Your task to perform on an android device: turn off javascript in the chrome app Image 0: 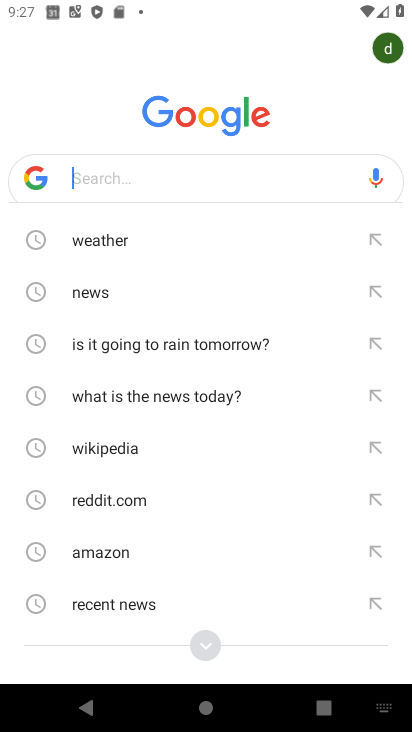
Step 0: press home button
Your task to perform on an android device: turn off javascript in the chrome app Image 1: 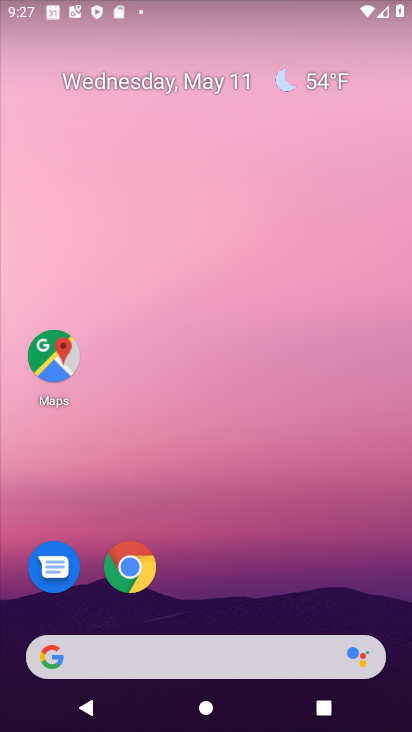
Step 1: click (142, 565)
Your task to perform on an android device: turn off javascript in the chrome app Image 2: 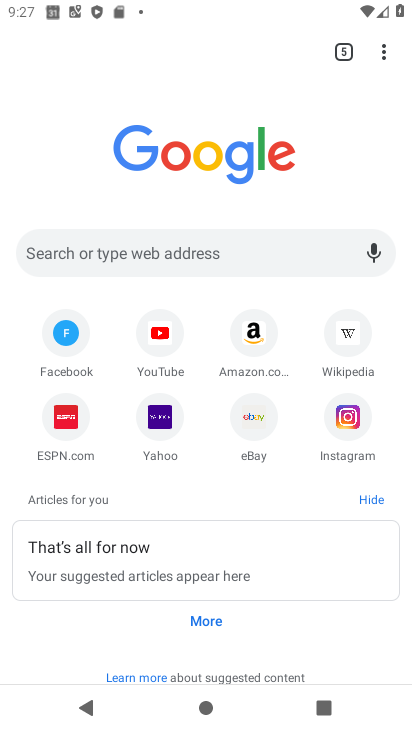
Step 2: click (383, 62)
Your task to perform on an android device: turn off javascript in the chrome app Image 3: 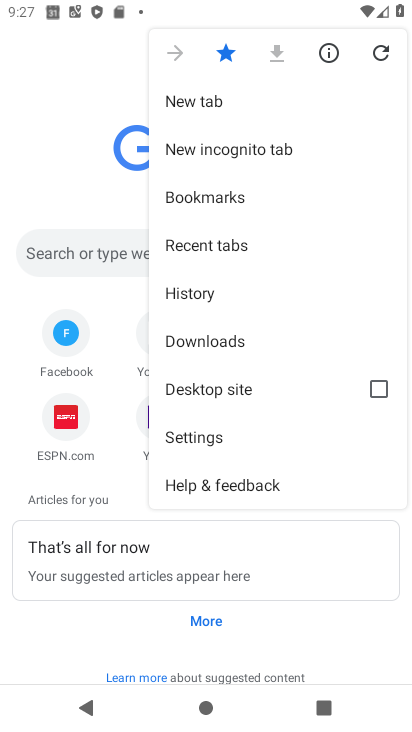
Step 3: click (211, 434)
Your task to perform on an android device: turn off javascript in the chrome app Image 4: 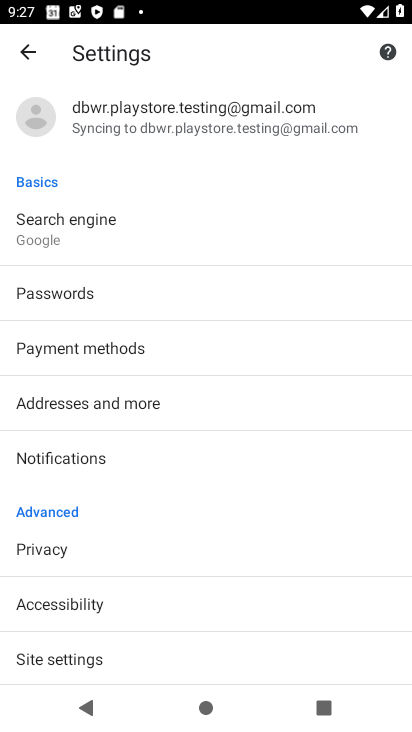
Step 4: drag from (80, 593) to (107, 375)
Your task to perform on an android device: turn off javascript in the chrome app Image 5: 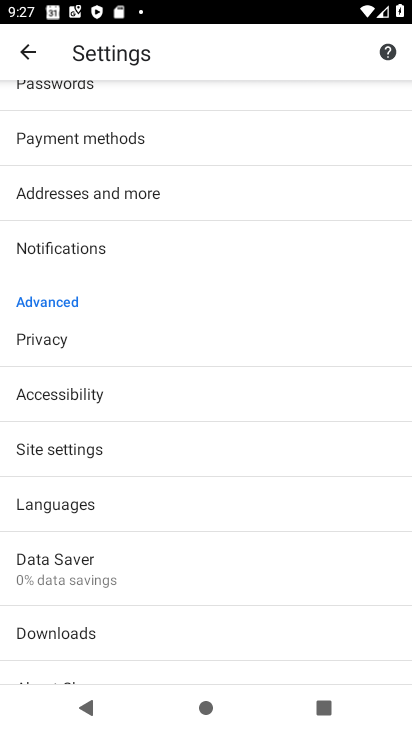
Step 5: click (63, 442)
Your task to perform on an android device: turn off javascript in the chrome app Image 6: 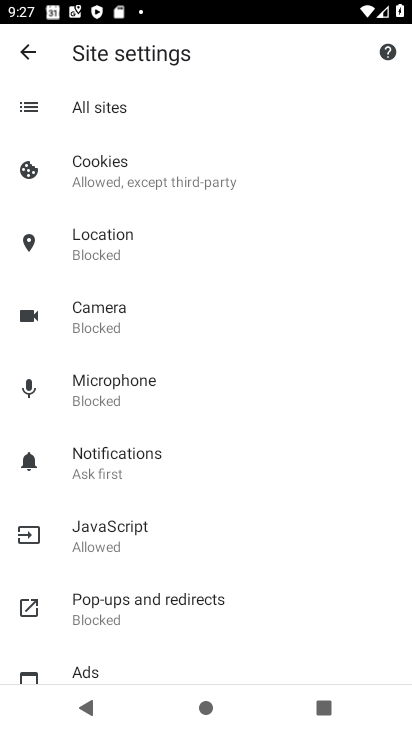
Step 6: click (133, 527)
Your task to perform on an android device: turn off javascript in the chrome app Image 7: 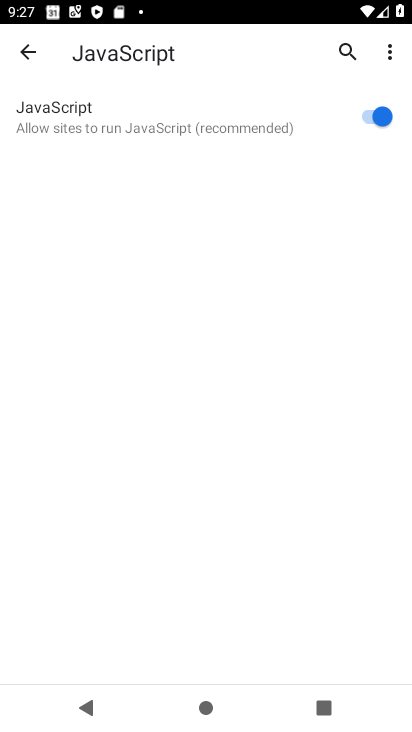
Step 7: click (349, 123)
Your task to perform on an android device: turn off javascript in the chrome app Image 8: 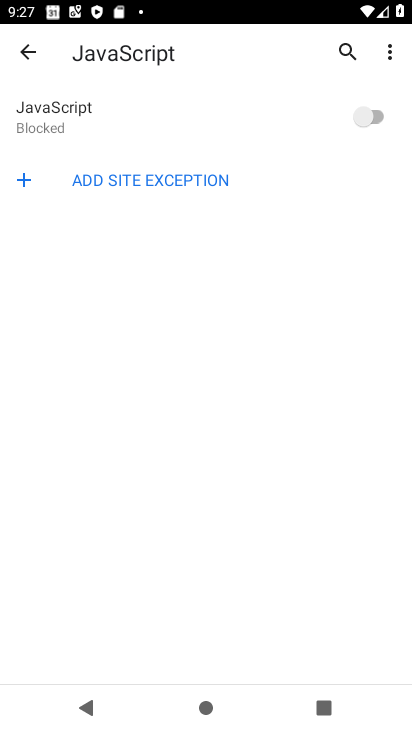
Step 8: task complete